Your task to perform on an android device: Go to privacy settings Image 0: 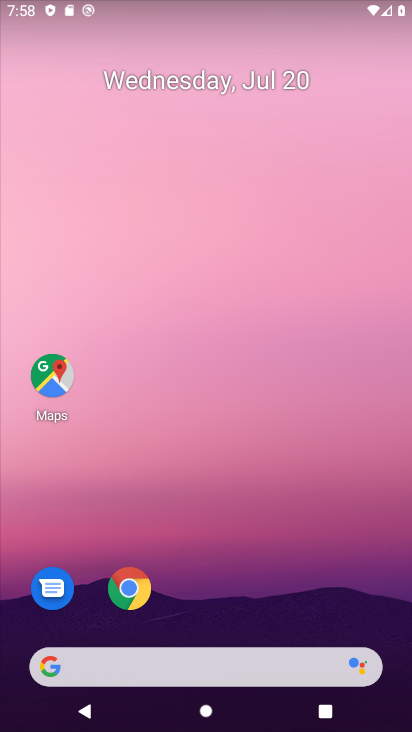
Step 0: click (222, 3)
Your task to perform on an android device: Go to privacy settings Image 1: 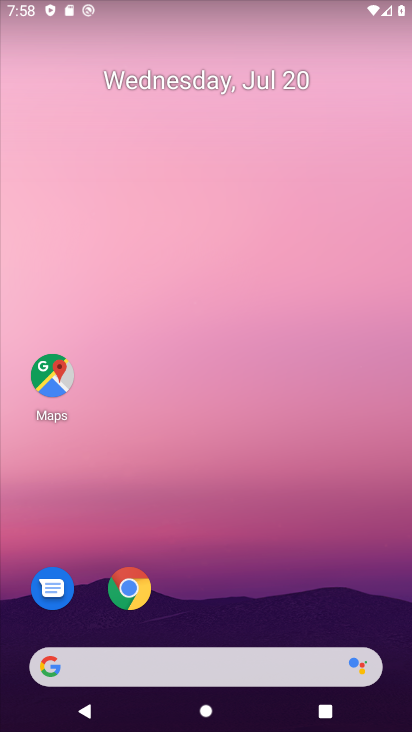
Step 1: drag from (31, 689) to (244, 129)
Your task to perform on an android device: Go to privacy settings Image 2: 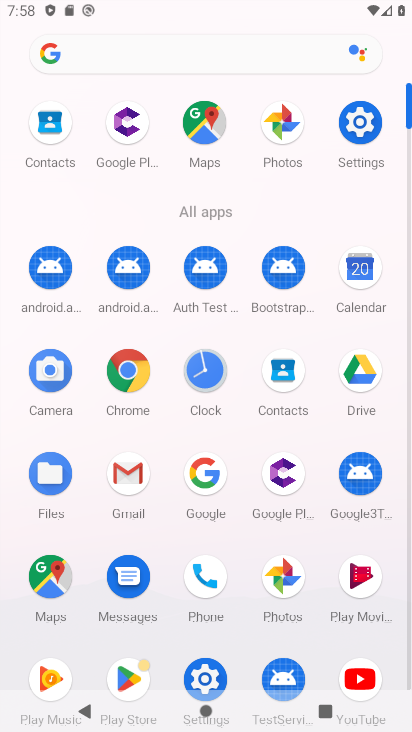
Step 2: click (201, 681)
Your task to perform on an android device: Go to privacy settings Image 3: 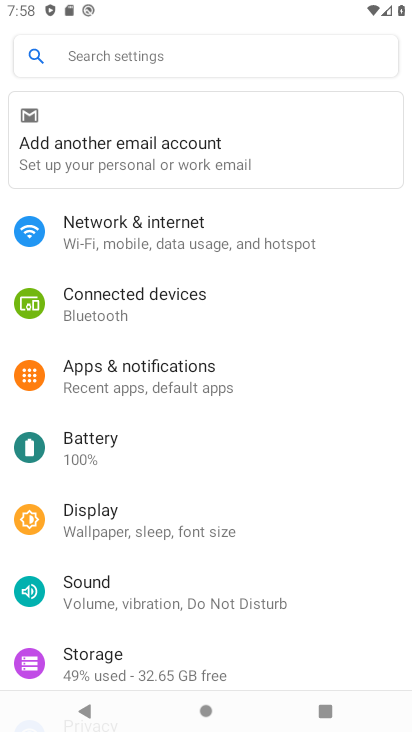
Step 3: click (121, 236)
Your task to perform on an android device: Go to privacy settings Image 4: 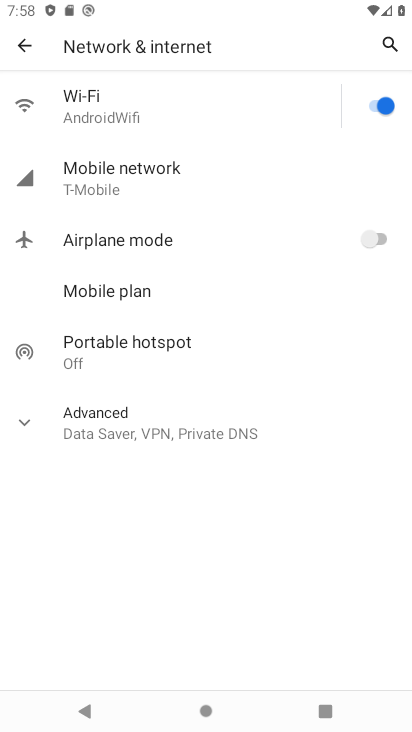
Step 4: click (22, 42)
Your task to perform on an android device: Go to privacy settings Image 5: 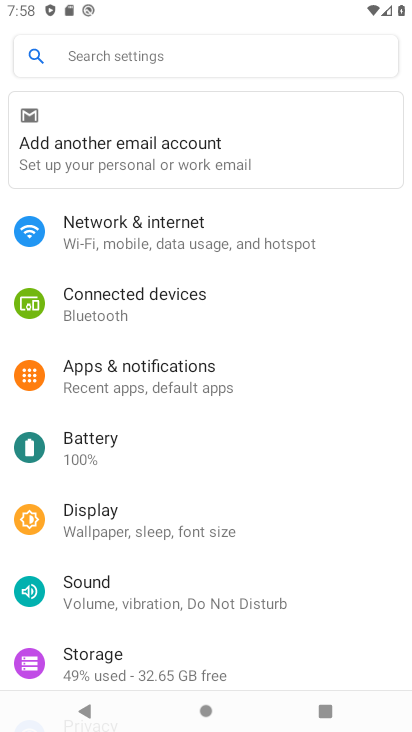
Step 5: drag from (236, 570) to (238, 100)
Your task to perform on an android device: Go to privacy settings Image 6: 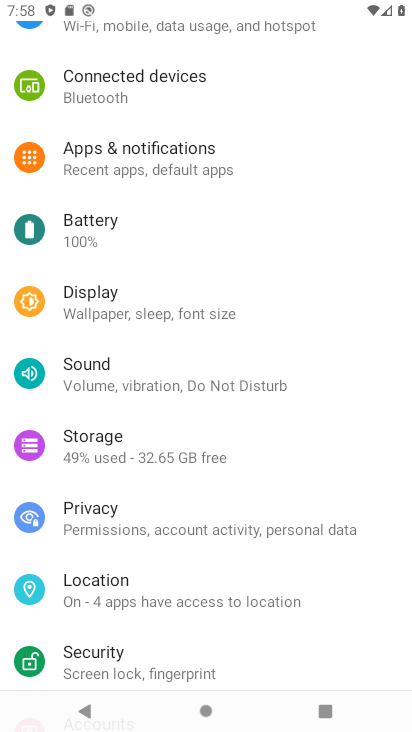
Step 6: click (107, 520)
Your task to perform on an android device: Go to privacy settings Image 7: 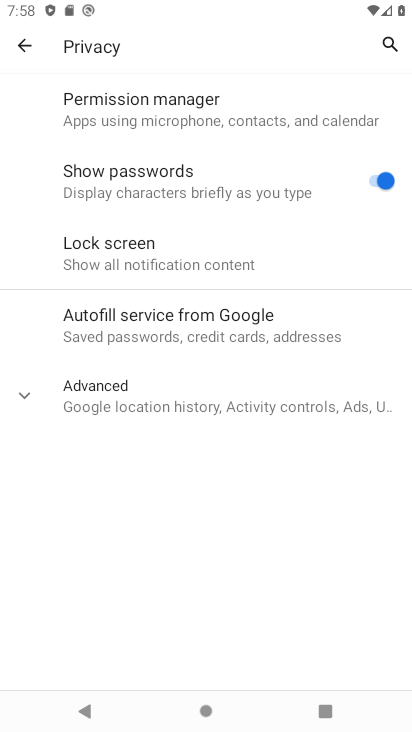
Step 7: task complete